Your task to perform on an android device: Do I have any events this weekend? Image 0: 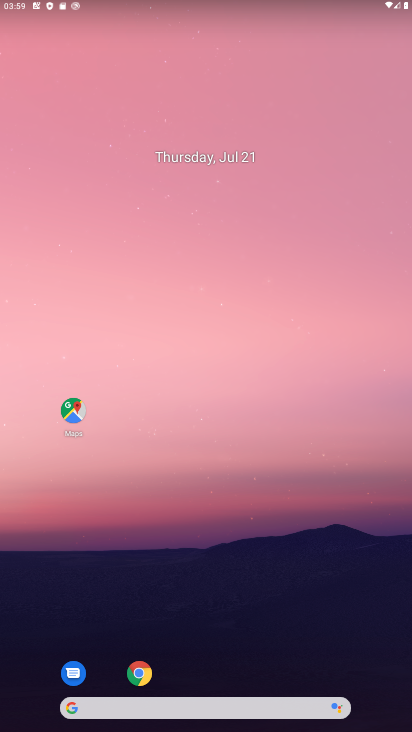
Step 0: drag from (278, 619) to (353, 51)
Your task to perform on an android device: Do I have any events this weekend? Image 1: 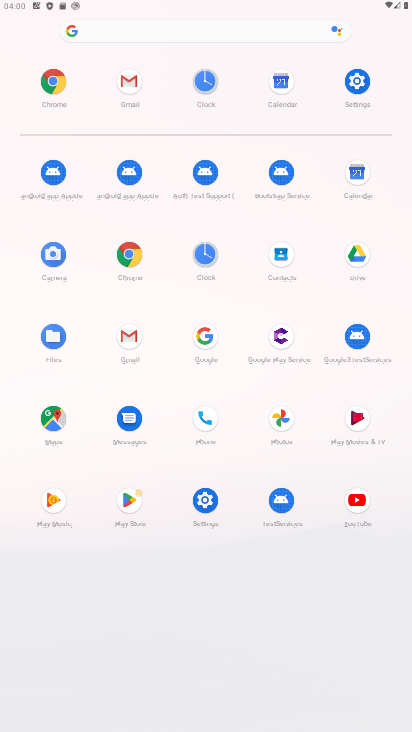
Step 1: click (360, 185)
Your task to perform on an android device: Do I have any events this weekend? Image 2: 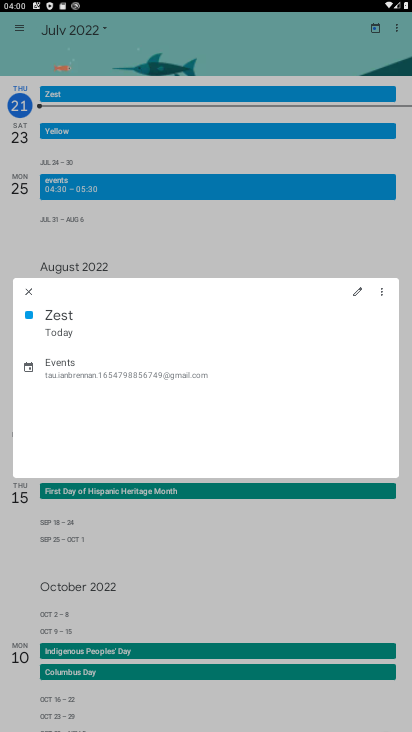
Step 2: click (32, 295)
Your task to perform on an android device: Do I have any events this weekend? Image 3: 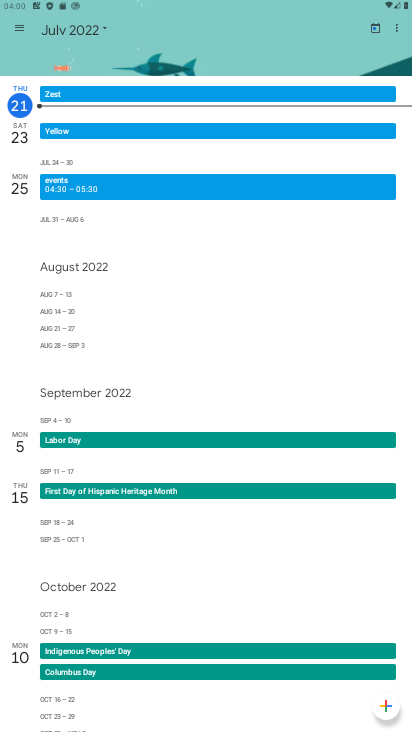
Step 3: click (26, 26)
Your task to perform on an android device: Do I have any events this weekend? Image 4: 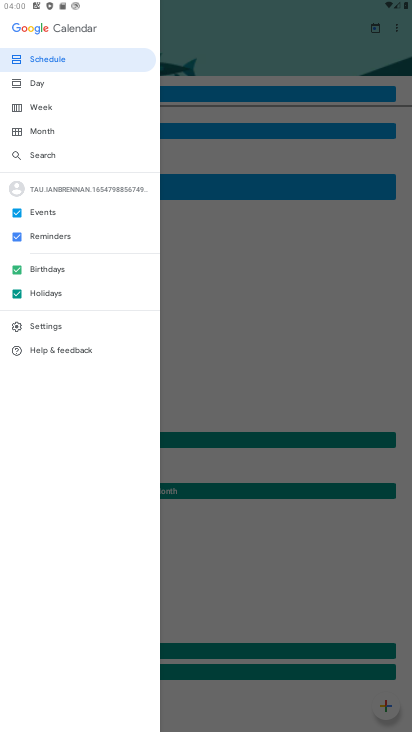
Step 4: click (41, 89)
Your task to perform on an android device: Do I have any events this weekend? Image 5: 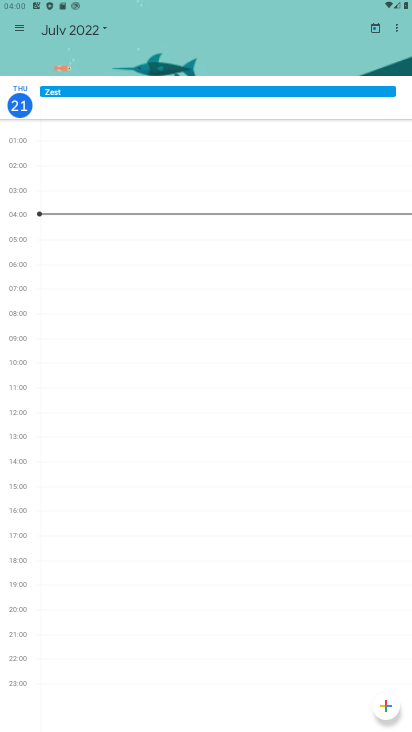
Step 5: click (104, 37)
Your task to perform on an android device: Do I have any events this weekend? Image 6: 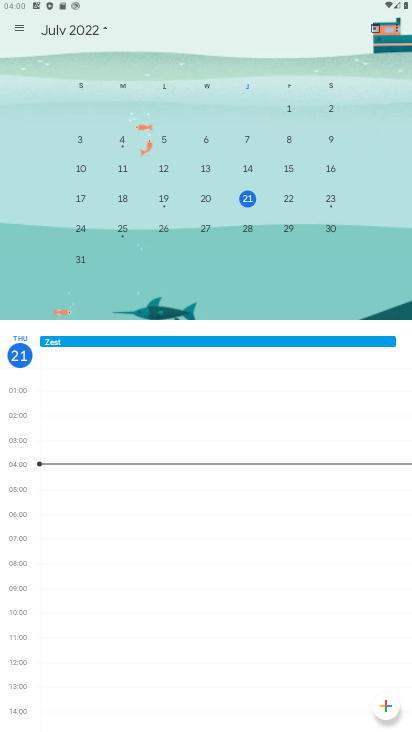
Step 6: click (332, 198)
Your task to perform on an android device: Do I have any events this weekend? Image 7: 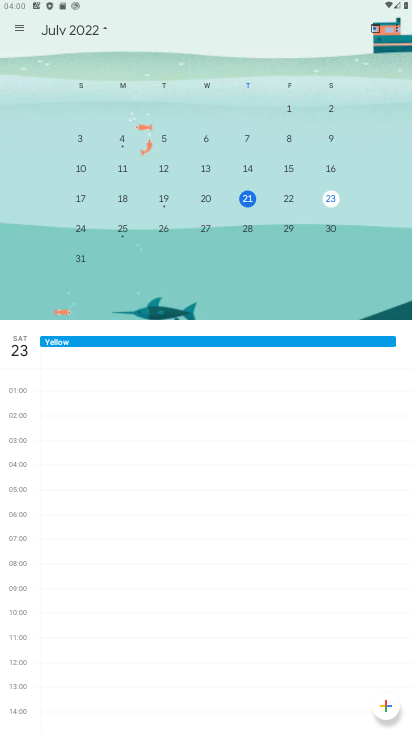
Step 7: task complete